Your task to perform on an android device: Show me recent news Image 0: 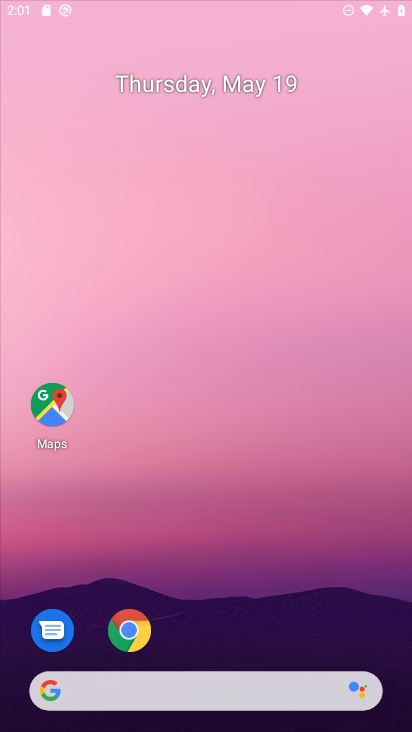
Step 0: click (200, 678)
Your task to perform on an android device: Show me recent news Image 1: 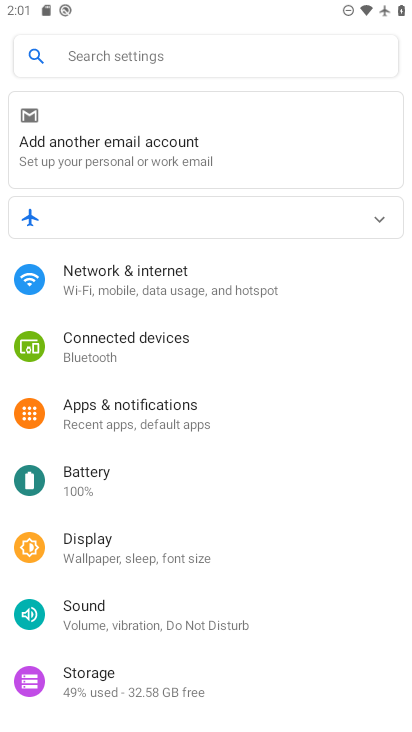
Step 1: press home button
Your task to perform on an android device: Show me recent news Image 2: 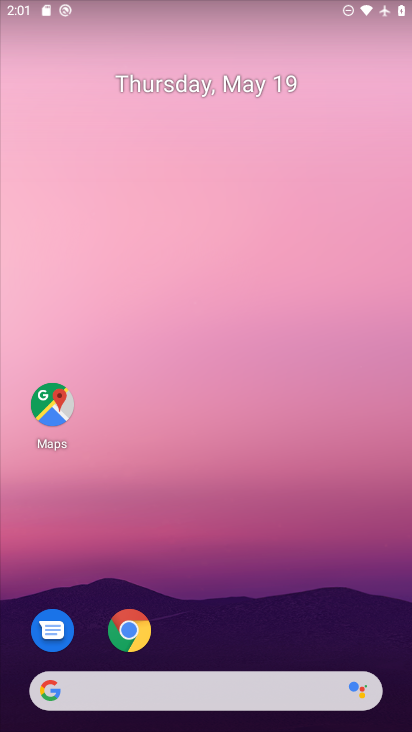
Step 2: click (163, 709)
Your task to perform on an android device: Show me recent news Image 3: 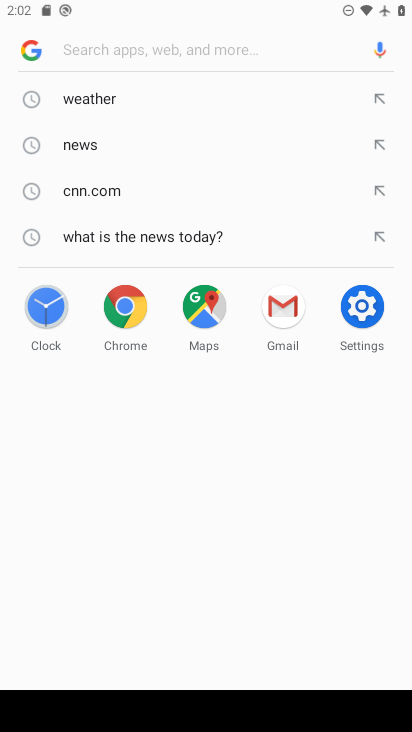
Step 3: task complete